Your task to perform on an android device: Go to Maps Image 0: 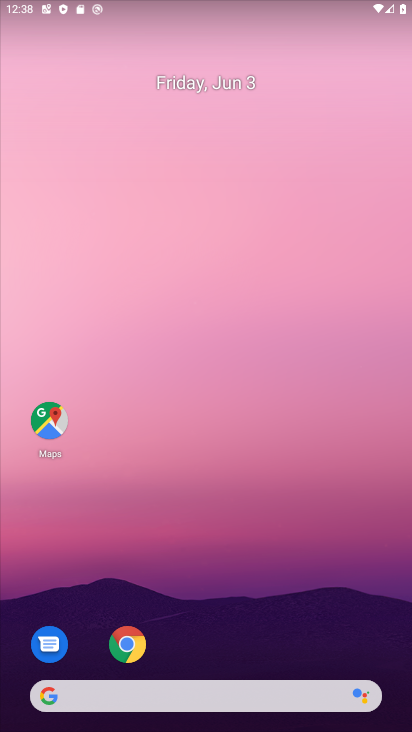
Step 0: drag from (189, 711) to (189, 132)
Your task to perform on an android device: Go to Maps Image 1: 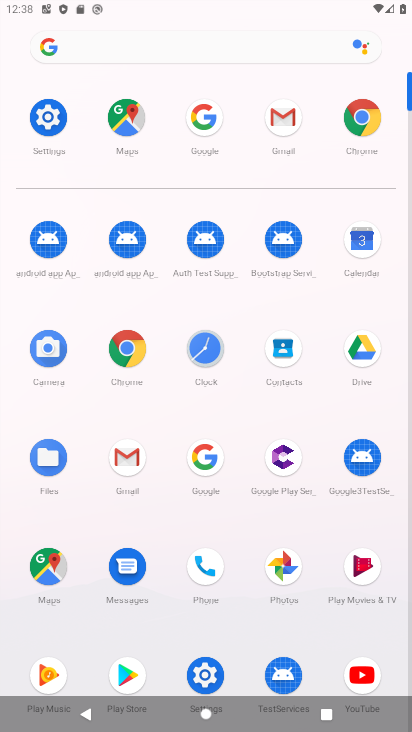
Step 1: click (52, 566)
Your task to perform on an android device: Go to Maps Image 2: 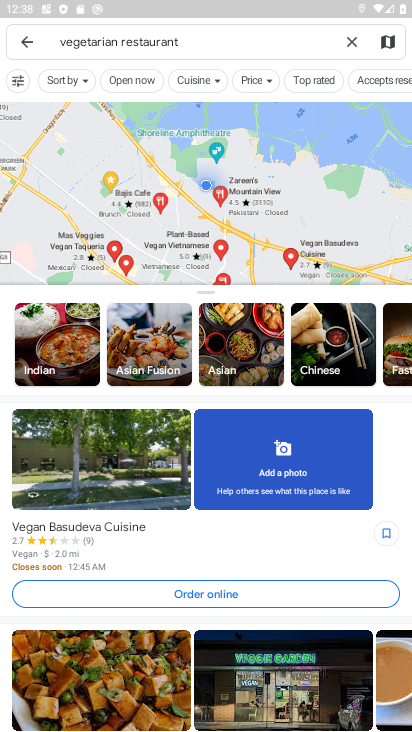
Step 2: task complete